Your task to perform on an android device: uninstall "TextNow: Call + Text Unlimited" Image 0: 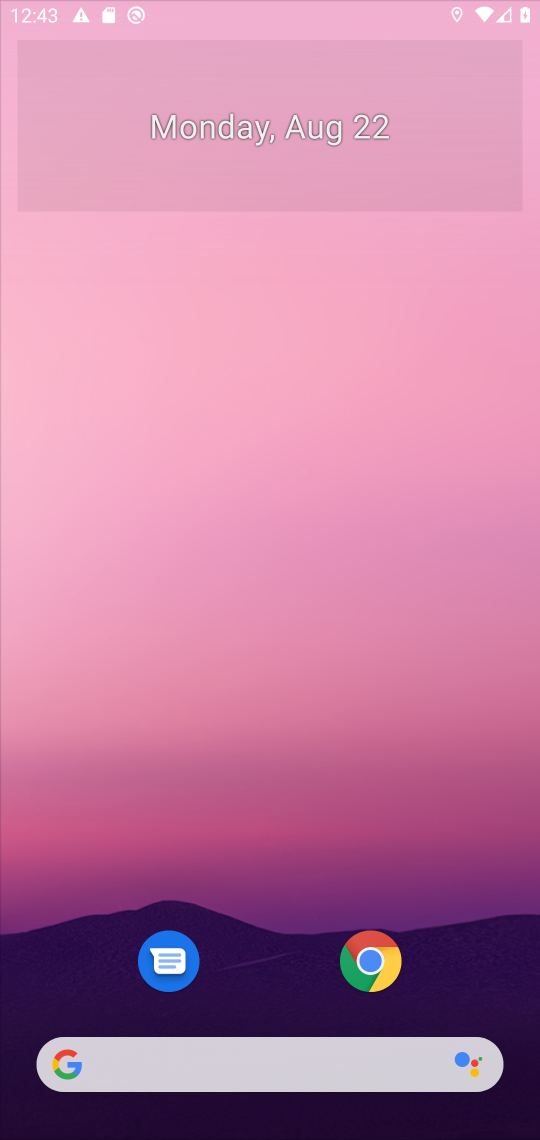
Step 0: press home button
Your task to perform on an android device: uninstall "TextNow: Call + Text Unlimited" Image 1: 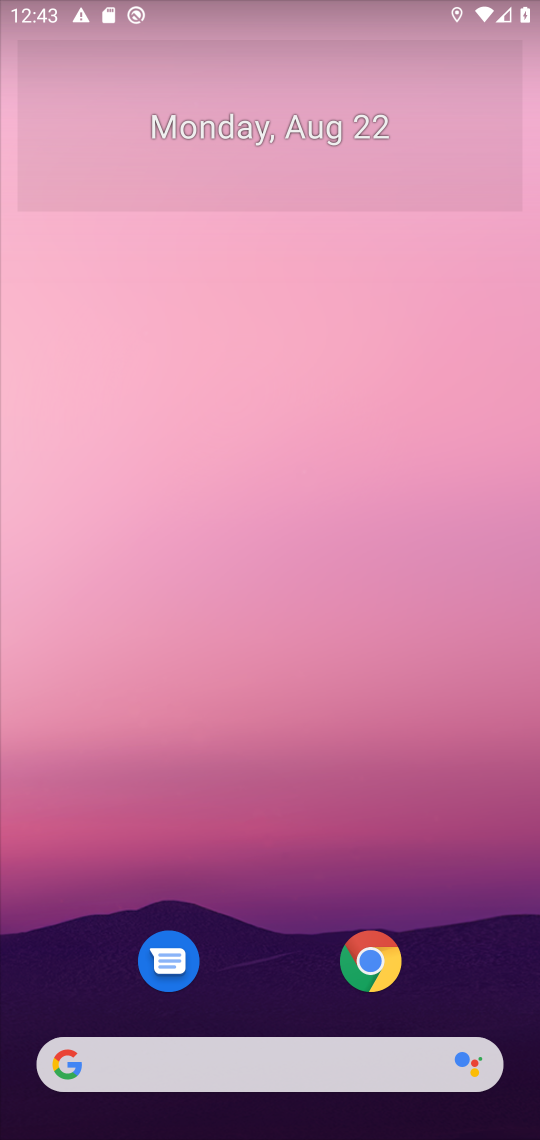
Step 1: drag from (484, 989) to (496, 157)
Your task to perform on an android device: uninstall "TextNow: Call + Text Unlimited" Image 2: 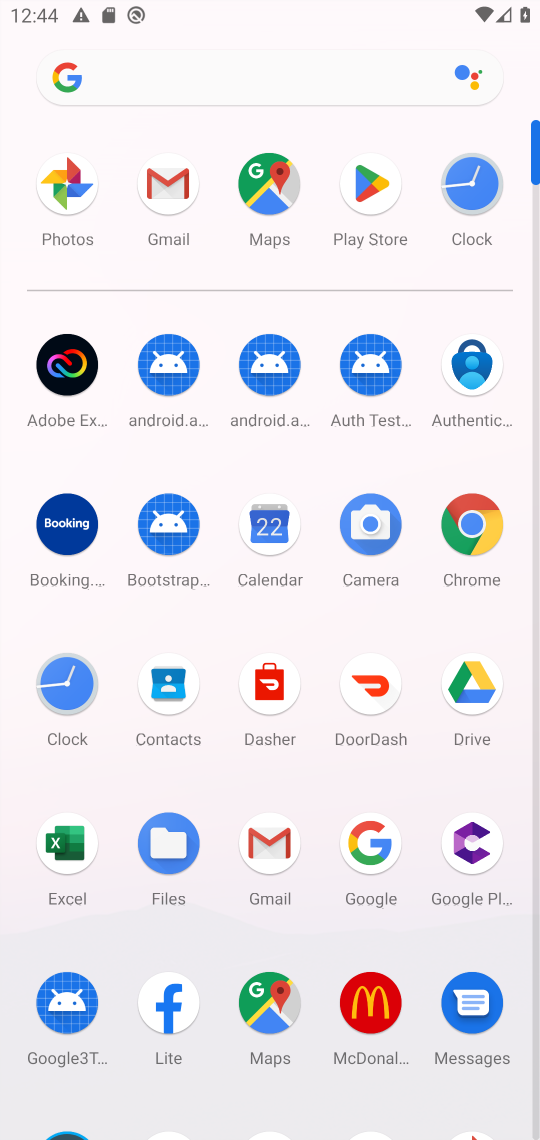
Step 2: click (381, 191)
Your task to perform on an android device: uninstall "TextNow: Call + Text Unlimited" Image 3: 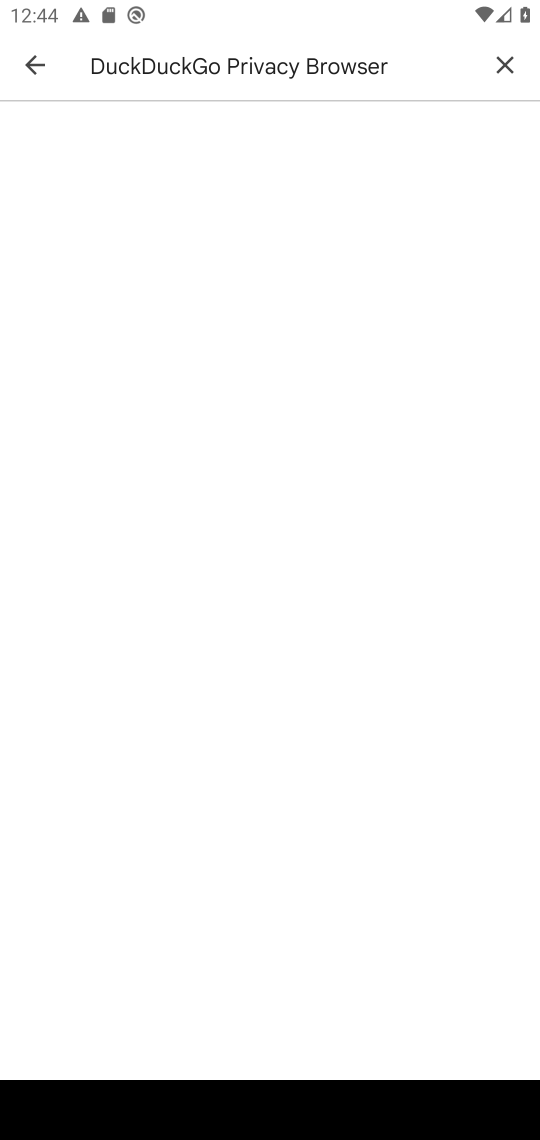
Step 3: press back button
Your task to perform on an android device: uninstall "TextNow: Call + Text Unlimited" Image 4: 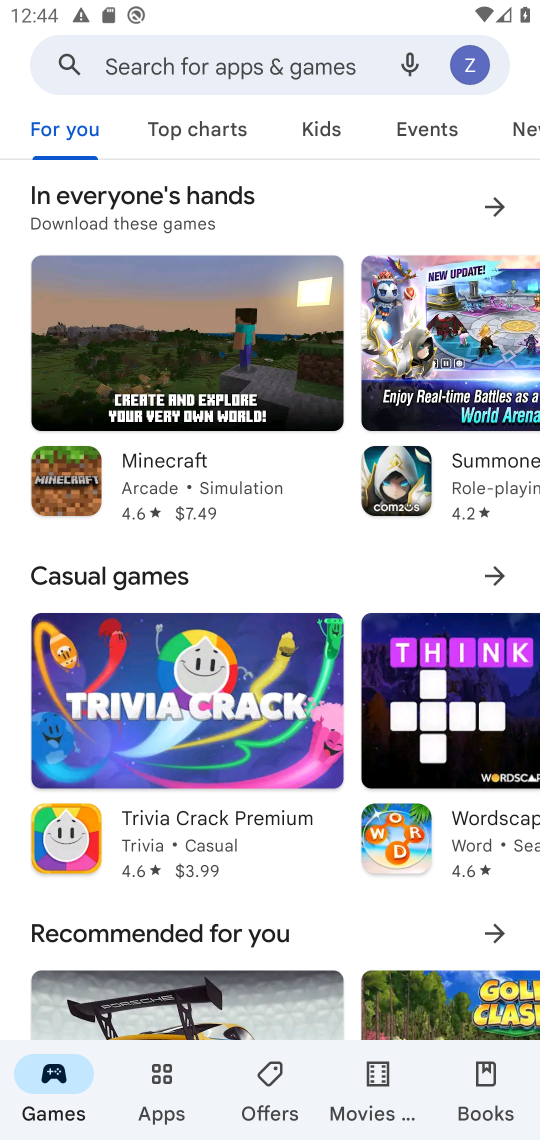
Step 4: click (219, 69)
Your task to perform on an android device: uninstall "TextNow: Call + Text Unlimited" Image 5: 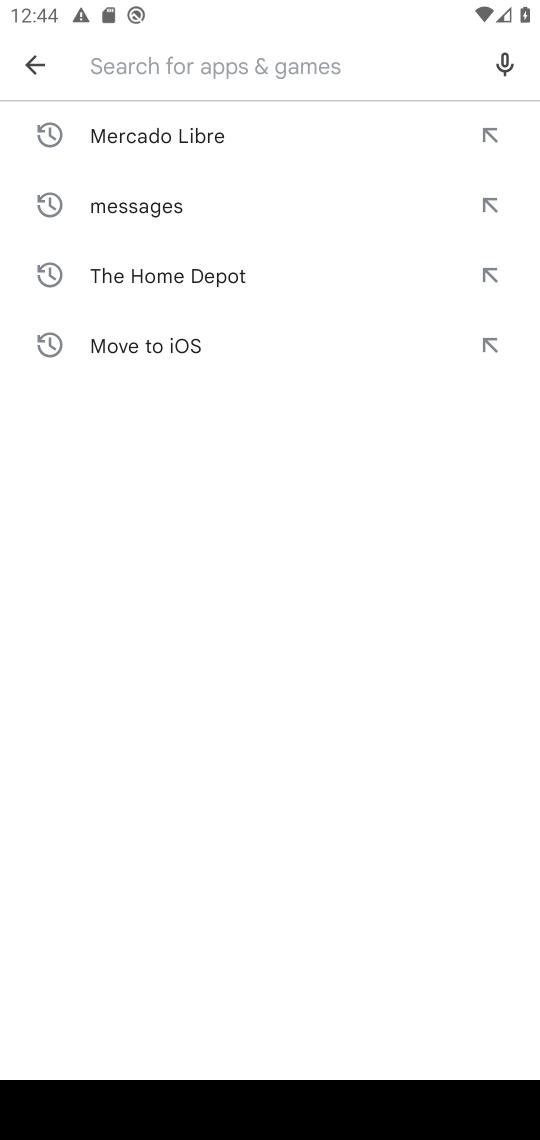
Step 5: type "TextNow: Call + Text Unlimited"
Your task to perform on an android device: uninstall "TextNow: Call + Text Unlimited" Image 6: 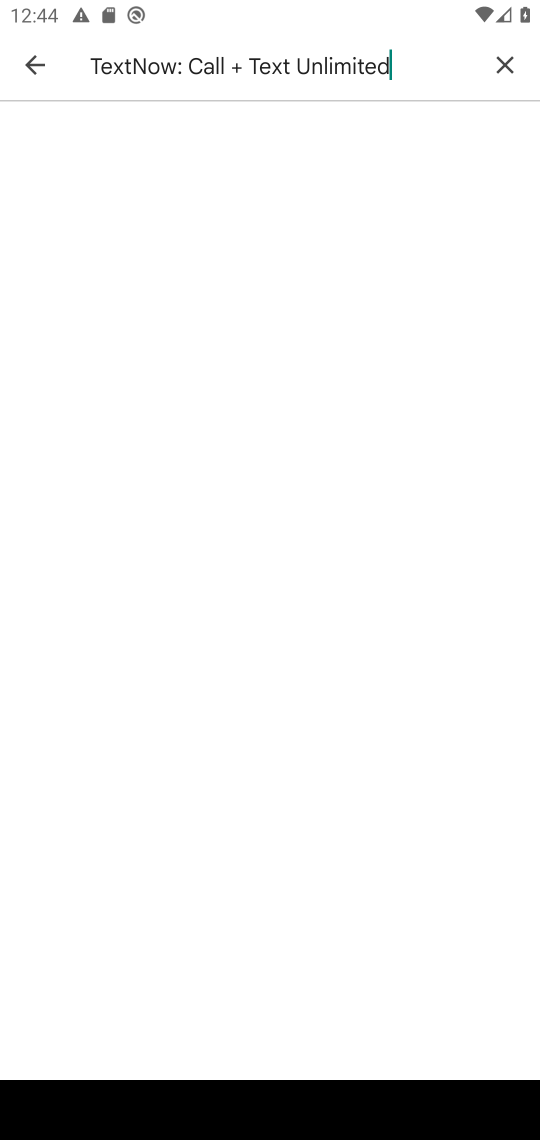
Step 6: press enter
Your task to perform on an android device: uninstall "TextNow: Call + Text Unlimited" Image 7: 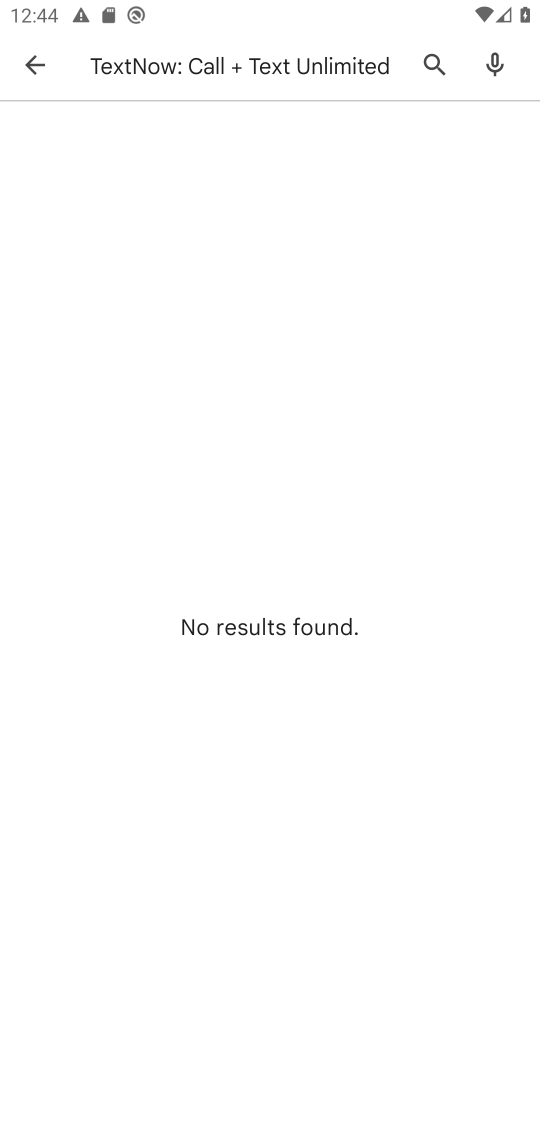
Step 7: task complete